Your task to perform on an android device: install app "Microsoft Authenticator" Image 0: 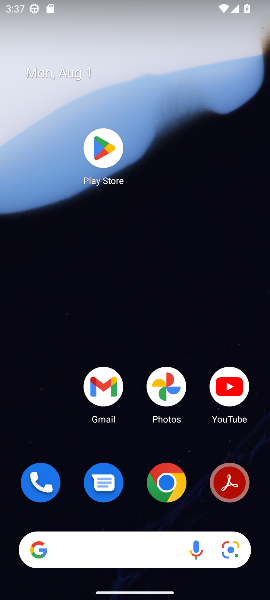
Step 0: press home button
Your task to perform on an android device: install app "Microsoft Authenticator" Image 1: 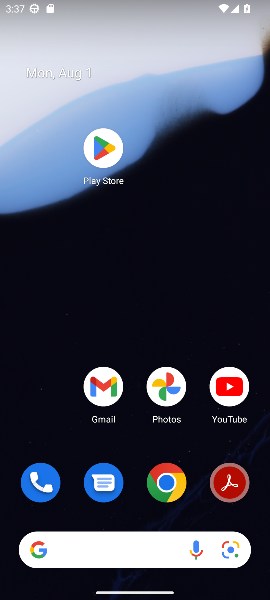
Step 1: click (108, 145)
Your task to perform on an android device: install app "Microsoft Authenticator" Image 2: 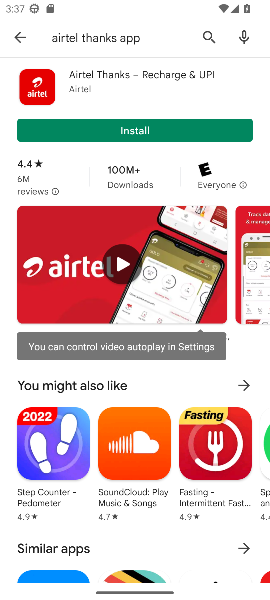
Step 2: click (201, 37)
Your task to perform on an android device: install app "Microsoft Authenticator" Image 3: 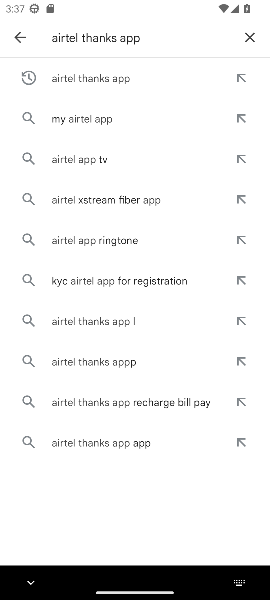
Step 3: click (248, 31)
Your task to perform on an android device: install app "Microsoft Authenticator" Image 4: 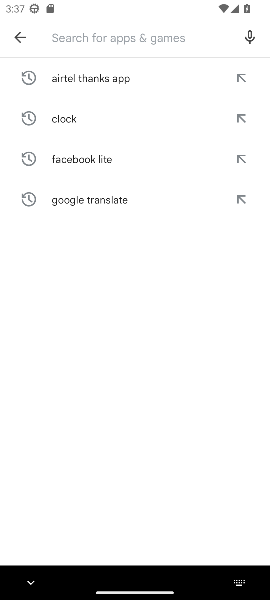
Step 4: type "Microsoft Authenticator"
Your task to perform on an android device: install app "Microsoft Authenticator" Image 5: 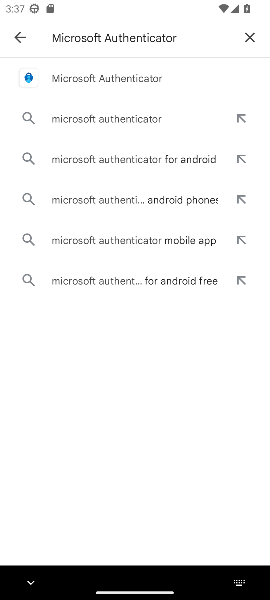
Step 5: click (109, 80)
Your task to perform on an android device: install app "Microsoft Authenticator" Image 6: 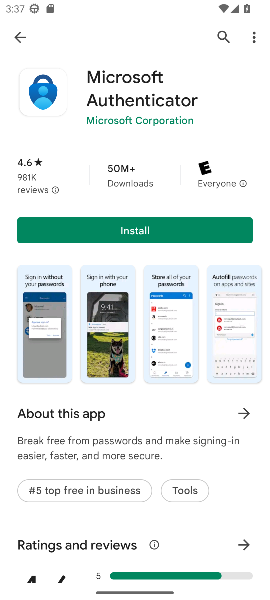
Step 6: click (133, 230)
Your task to perform on an android device: install app "Microsoft Authenticator" Image 7: 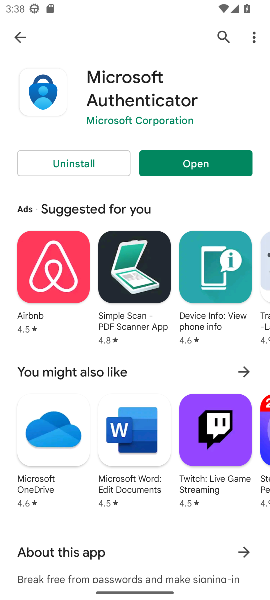
Step 7: task complete